Your task to perform on an android device: check google app version Image 0: 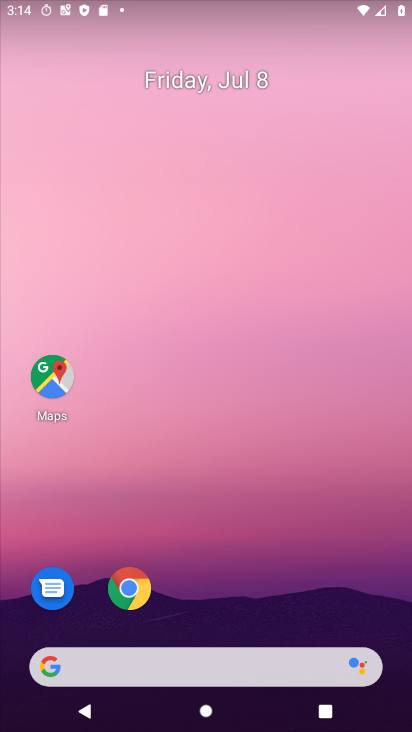
Step 0: drag from (225, 618) to (313, 136)
Your task to perform on an android device: check google app version Image 1: 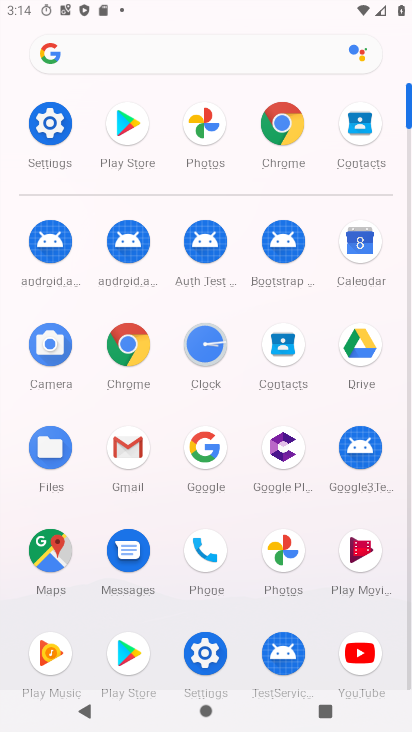
Step 1: click (211, 444)
Your task to perform on an android device: check google app version Image 2: 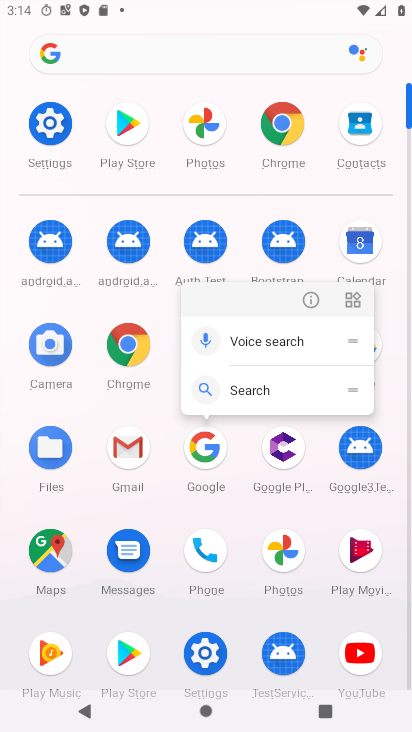
Step 2: click (309, 295)
Your task to perform on an android device: check google app version Image 3: 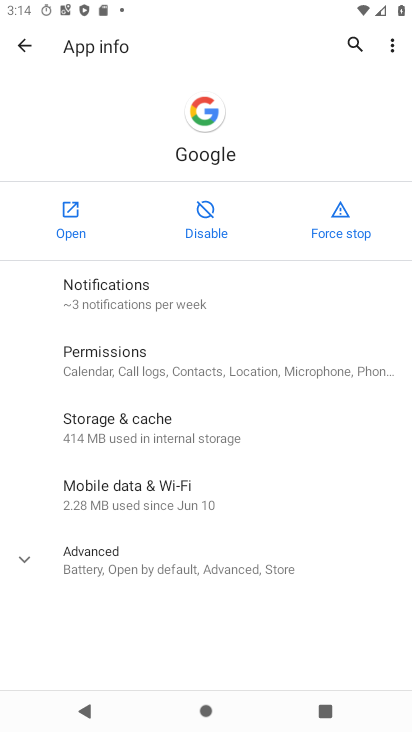
Step 3: click (98, 564)
Your task to perform on an android device: check google app version Image 4: 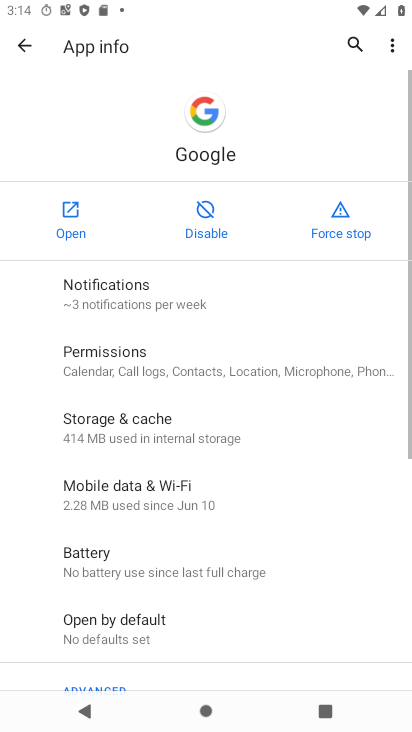
Step 4: task complete